Your task to perform on an android device: allow notifications from all sites in the chrome app Image 0: 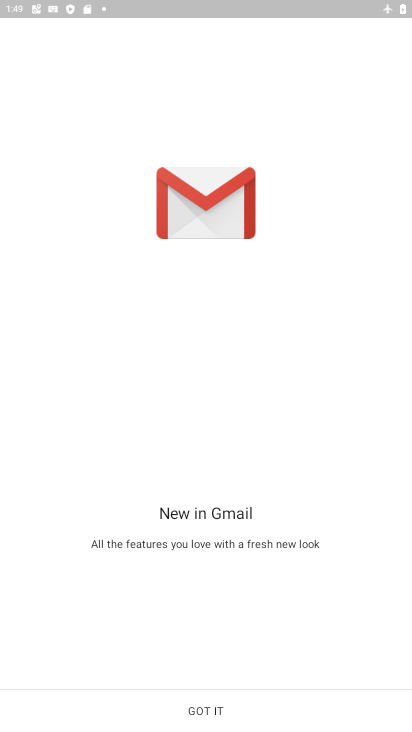
Step 0: click (235, 696)
Your task to perform on an android device: allow notifications from all sites in the chrome app Image 1: 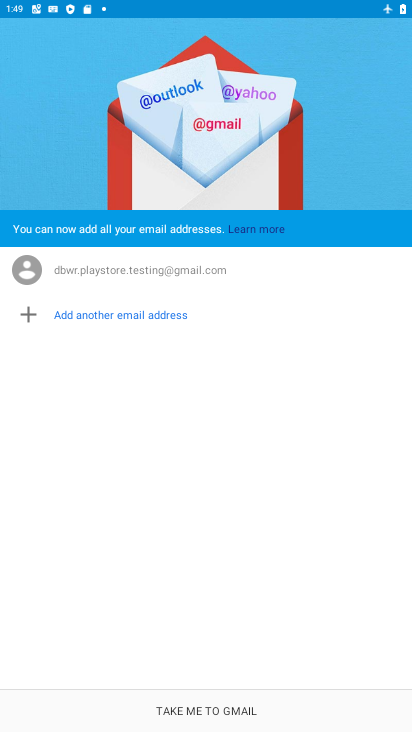
Step 1: click (223, 714)
Your task to perform on an android device: allow notifications from all sites in the chrome app Image 2: 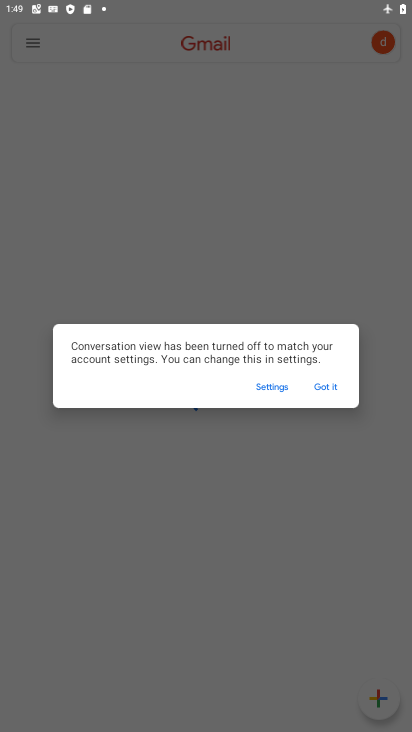
Step 2: click (322, 382)
Your task to perform on an android device: allow notifications from all sites in the chrome app Image 3: 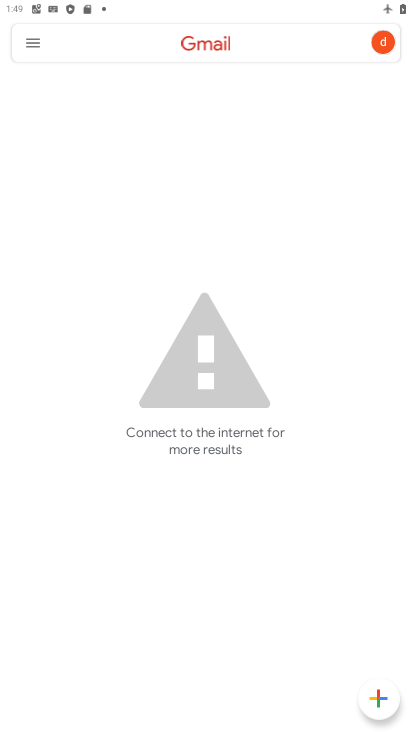
Step 3: click (22, 30)
Your task to perform on an android device: allow notifications from all sites in the chrome app Image 4: 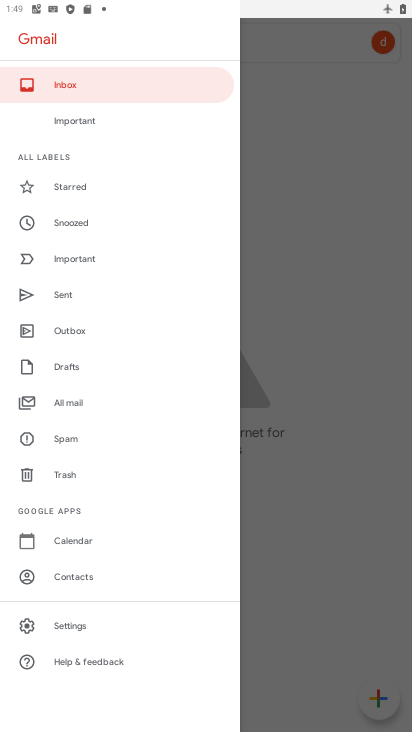
Step 4: drag from (148, 625) to (132, 244)
Your task to perform on an android device: allow notifications from all sites in the chrome app Image 5: 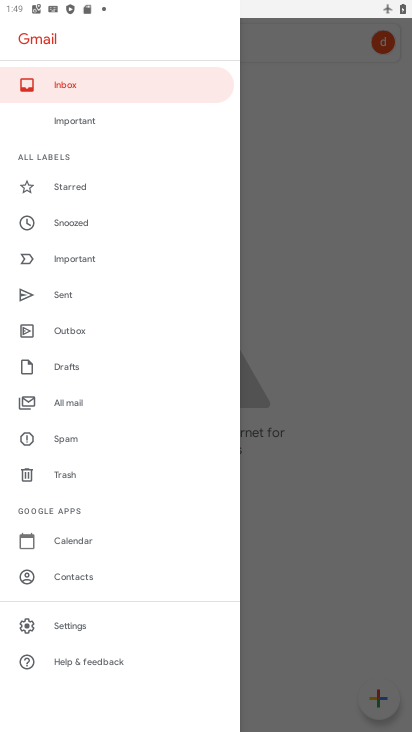
Step 5: click (78, 625)
Your task to perform on an android device: allow notifications from all sites in the chrome app Image 6: 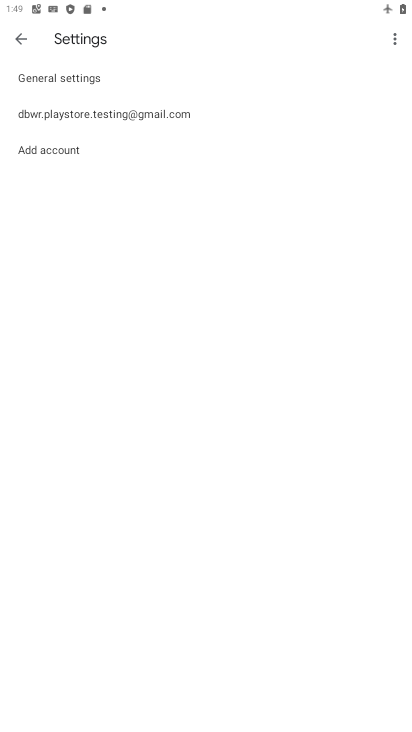
Step 6: click (107, 121)
Your task to perform on an android device: allow notifications from all sites in the chrome app Image 7: 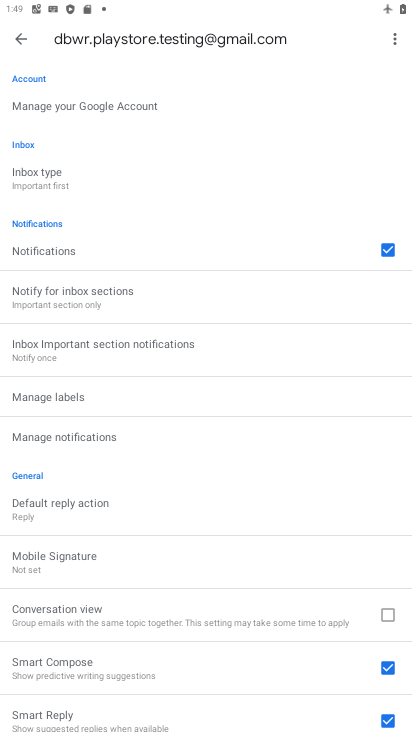
Step 7: click (18, 45)
Your task to perform on an android device: allow notifications from all sites in the chrome app Image 8: 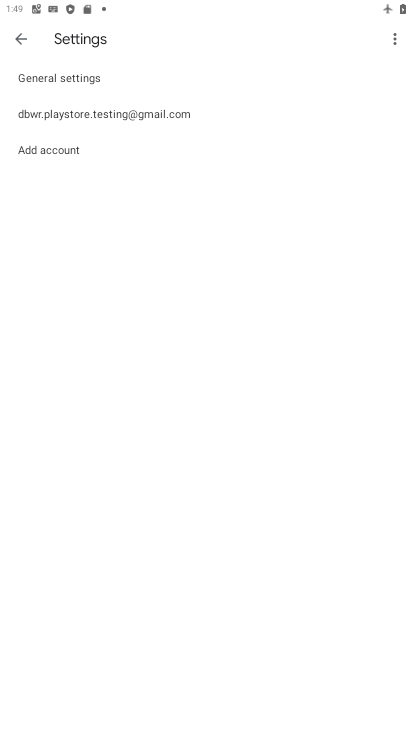
Step 8: press back button
Your task to perform on an android device: allow notifications from all sites in the chrome app Image 9: 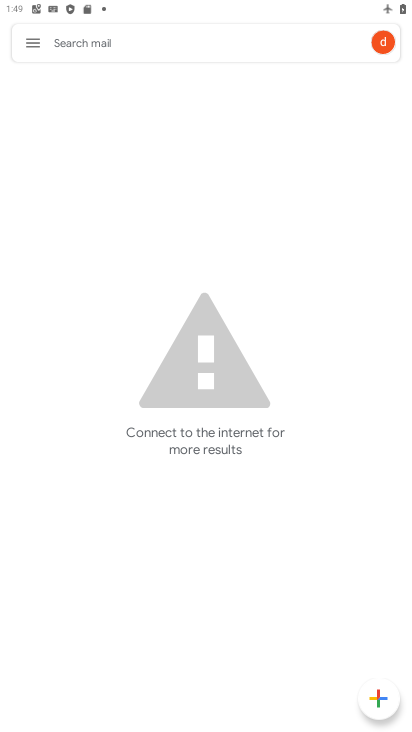
Step 9: press back button
Your task to perform on an android device: allow notifications from all sites in the chrome app Image 10: 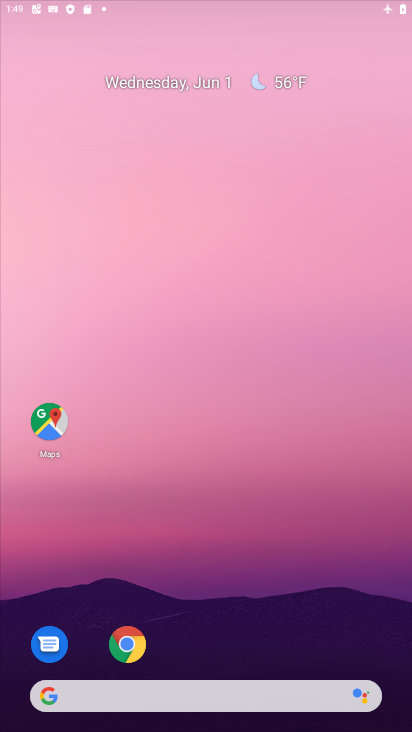
Step 10: press home button
Your task to perform on an android device: allow notifications from all sites in the chrome app Image 11: 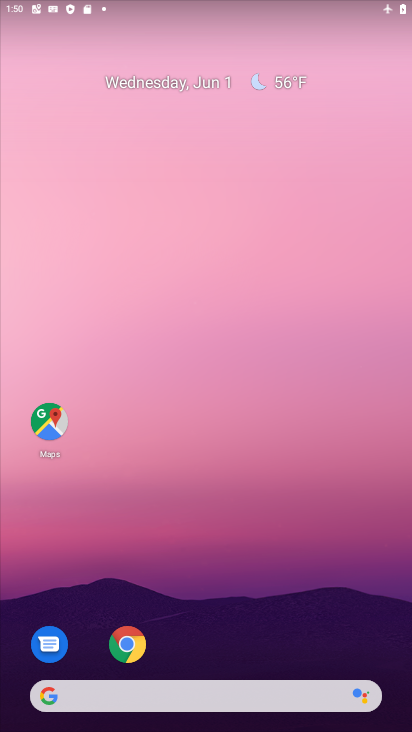
Step 11: drag from (277, 620) to (169, 36)
Your task to perform on an android device: allow notifications from all sites in the chrome app Image 12: 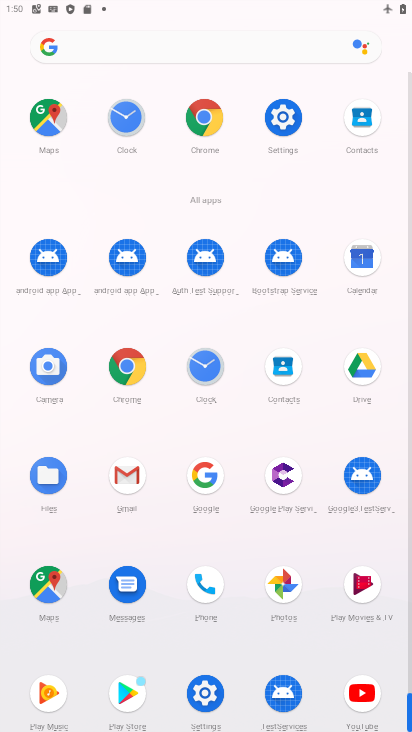
Step 12: click (127, 363)
Your task to perform on an android device: allow notifications from all sites in the chrome app Image 13: 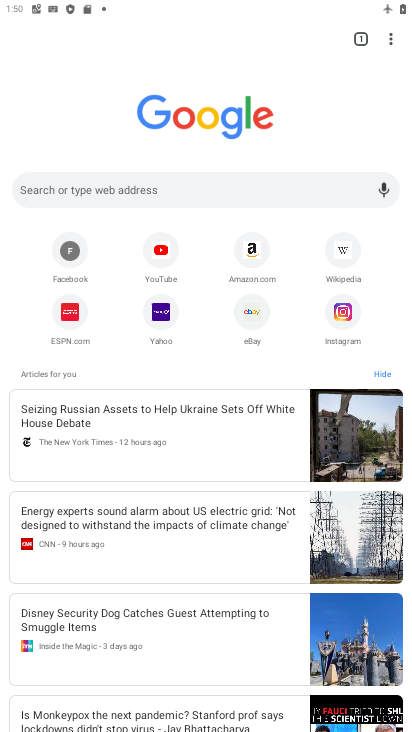
Step 13: drag from (388, 33) to (251, 321)
Your task to perform on an android device: allow notifications from all sites in the chrome app Image 14: 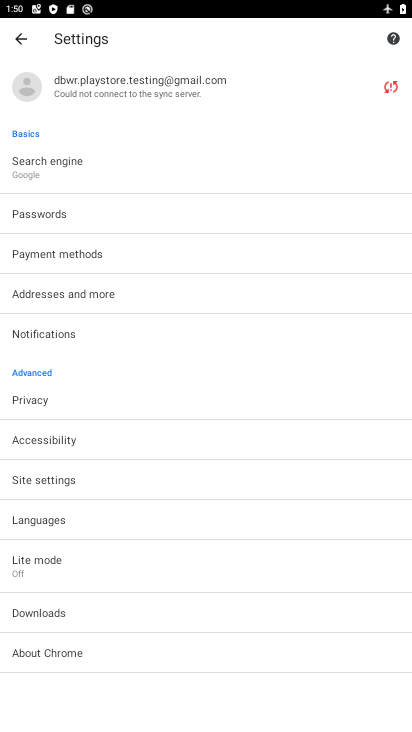
Step 14: click (72, 480)
Your task to perform on an android device: allow notifications from all sites in the chrome app Image 15: 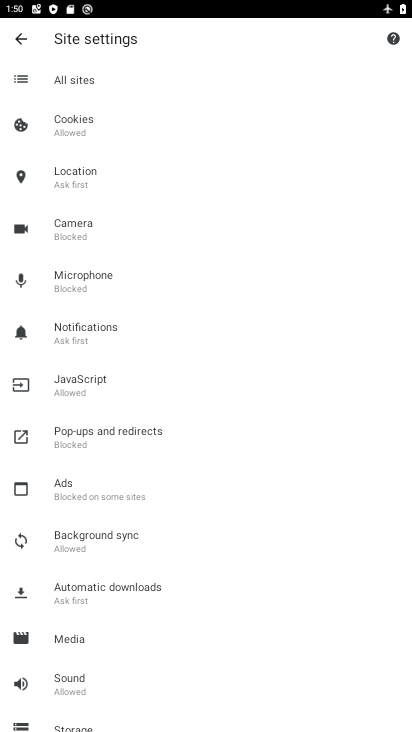
Step 15: click (88, 330)
Your task to perform on an android device: allow notifications from all sites in the chrome app Image 16: 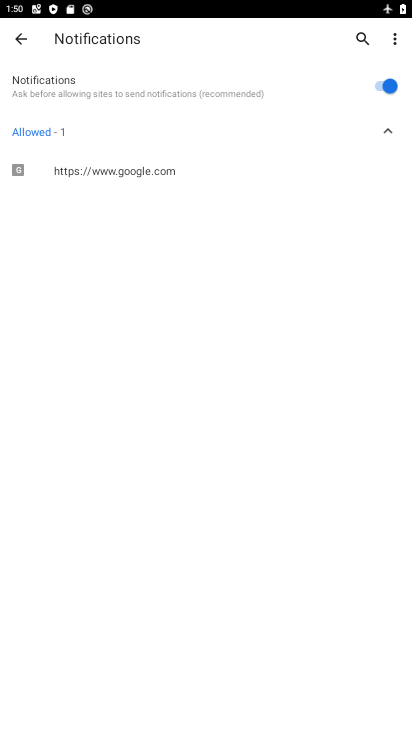
Step 16: task complete